Your task to perform on an android device: Search for sushi restaurants on Maps Image 0: 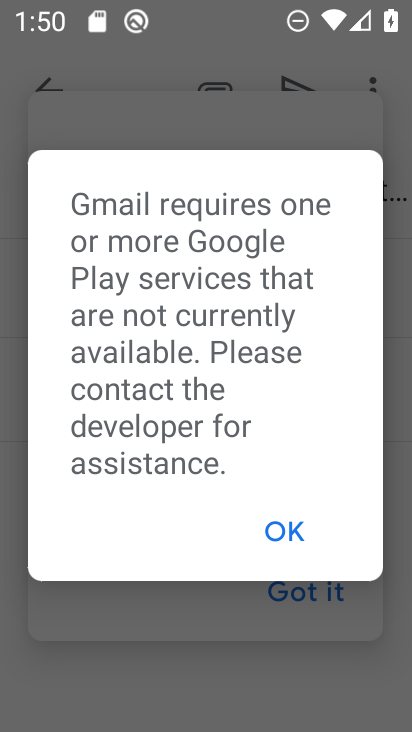
Step 0: press home button
Your task to perform on an android device: Search for sushi restaurants on Maps Image 1: 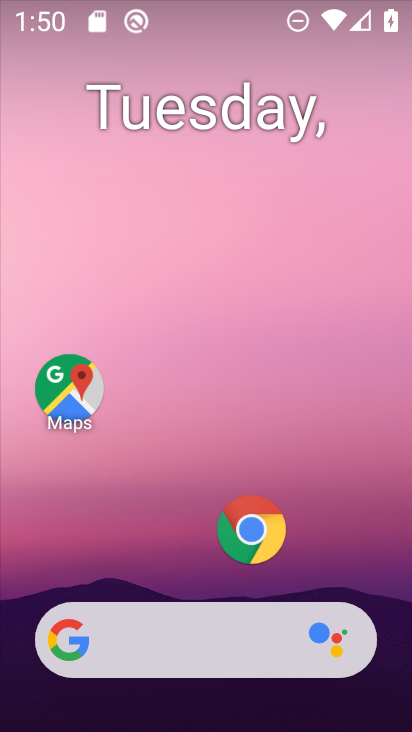
Step 1: drag from (184, 604) to (184, 6)
Your task to perform on an android device: Search for sushi restaurants on Maps Image 2: 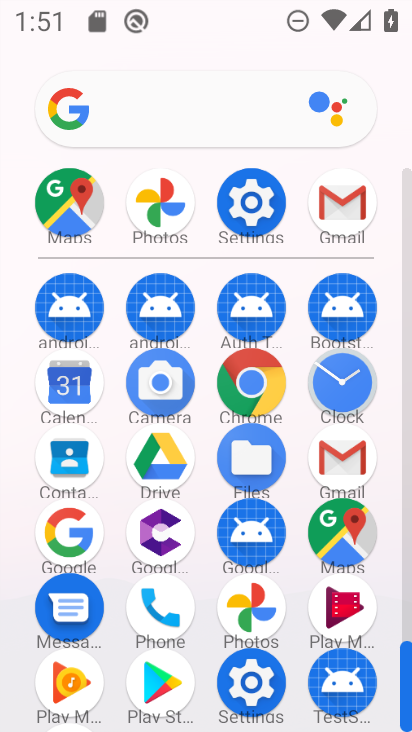
Step 2: click (353, 517)
Your task to perform on an android device: Search for sushi restaurants on Maps Image 3: 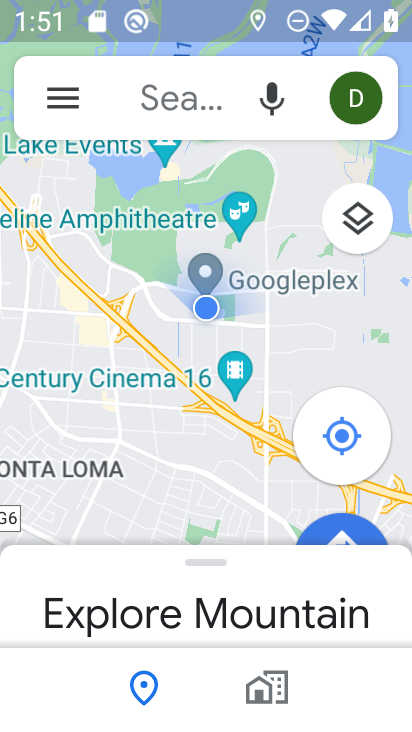
Step 3: click (166, 100)
Your task to perform on an android device: Search for sushi restaurants on Maps Image 4: 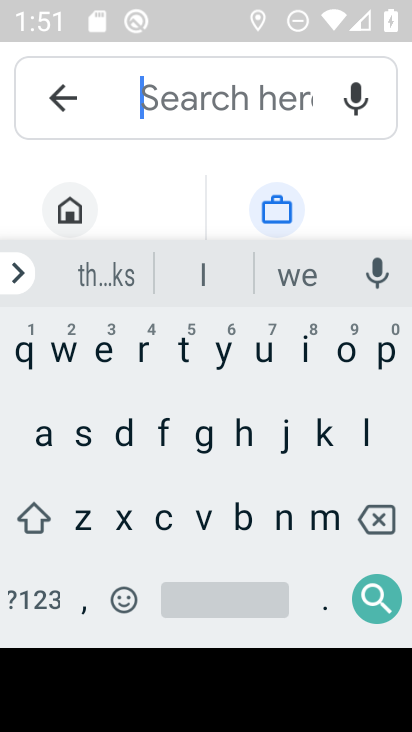
Step 4: click (84, 435)
Your task to perform on an android device: Search for sushi restaurants on Maps Image 5: 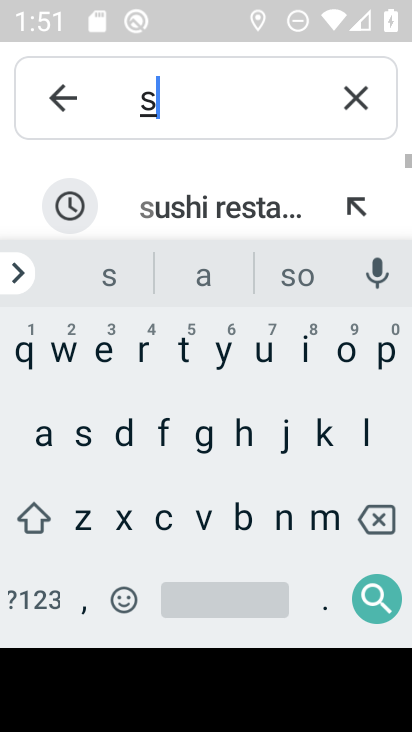
Step 5: click (260, 353)
Your task to perform on an android device: Search for sushi restaurants on Maps Image 6: 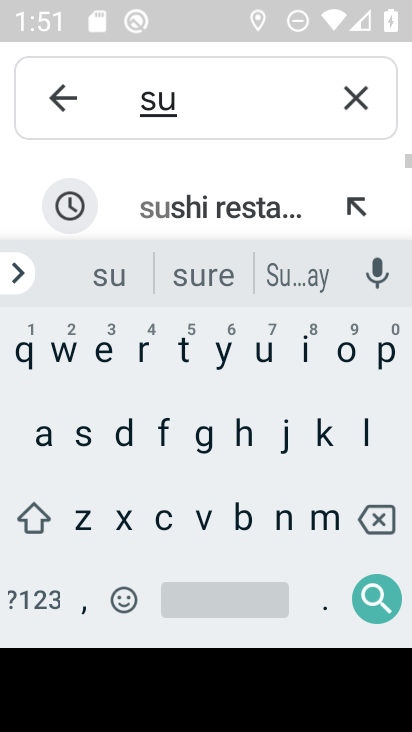
Step 6: click (190, 185)
Your task to perform on an android device: Search for sushi restaurants on Maps Image 7: 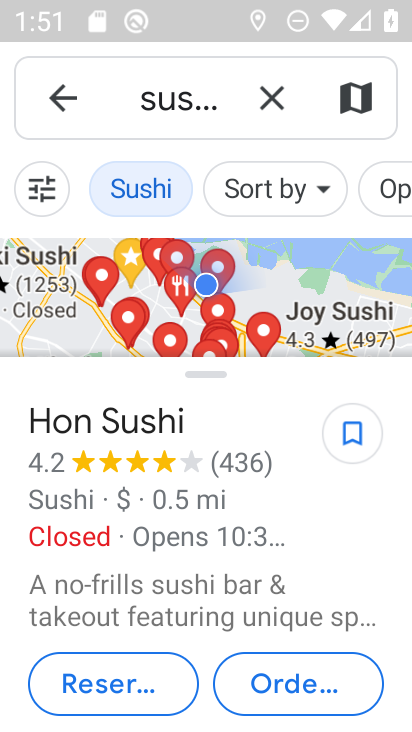
Step 7: click (159, 265)
Your task to perform on an android device: Search for sushi restaurants on Maps Image 8: 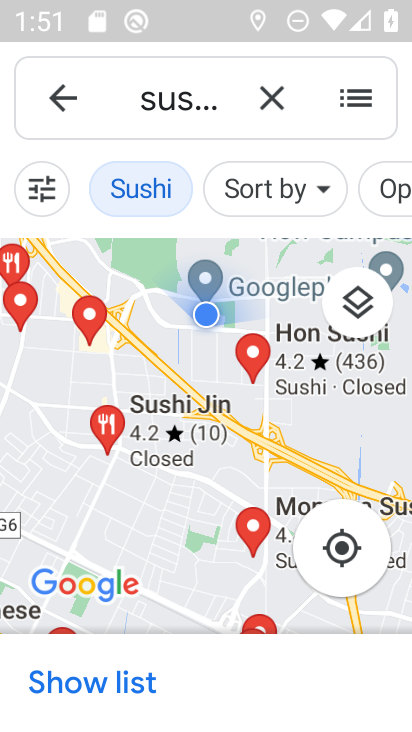
Step 8: task complete